Your task to perform on an android device: Open ESPN.com Image 0: 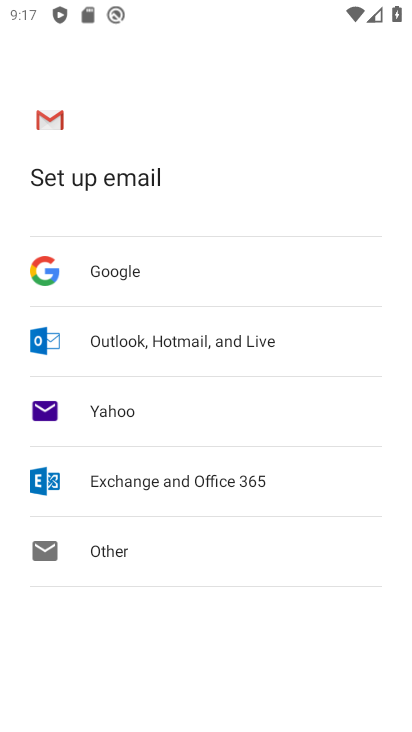
Step 0: press home button
Your task to perform on an android device: Open ESPN.com Image 1: 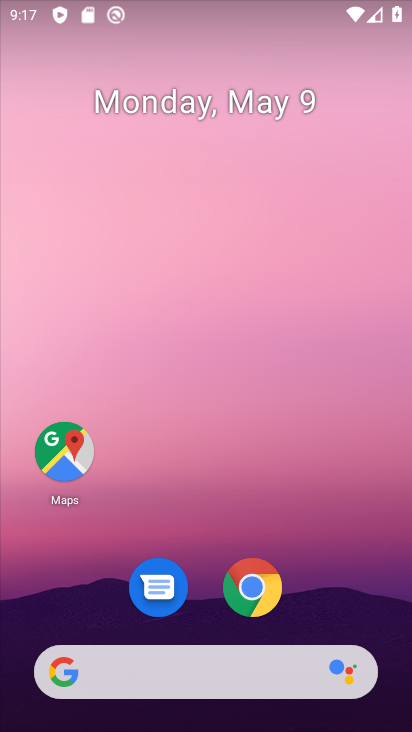
Step 1: click (250, 590)
Your task to perform on an android device: Open ESPN.com Image 2: 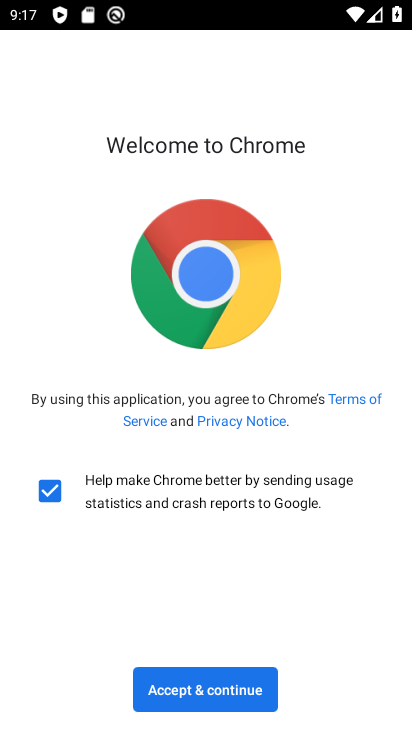
Step 2: click (186, 686)
Your task to perform on an android device: Open ESPN.com Image 3: 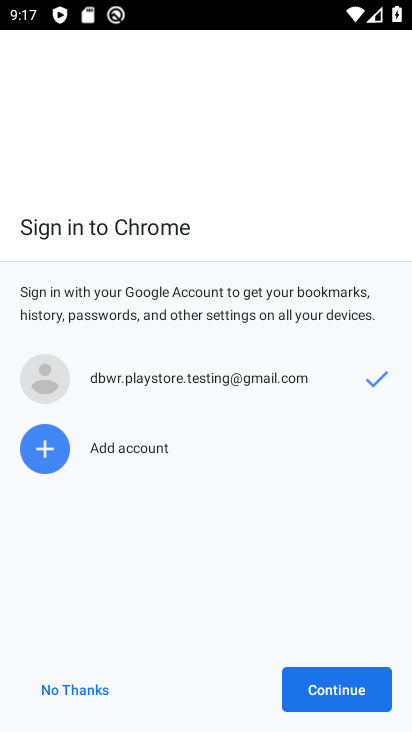
Step 3: click (327, 682)
Your task to perform on an android device: Open ESPN.com Image 4: 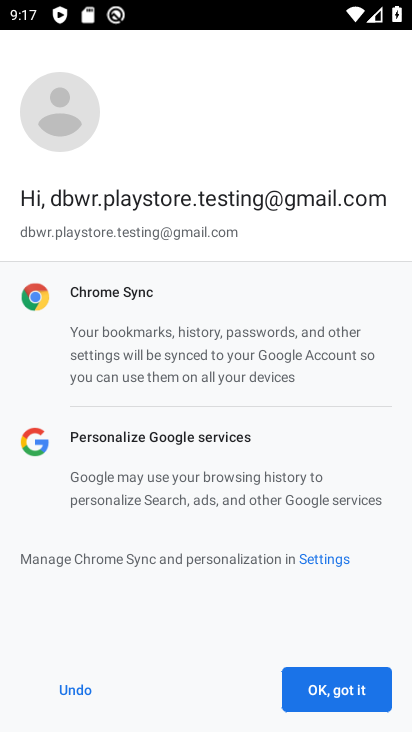
Step 4: click (327, 682)
Your task to perform on an android device: Open ESPN.com Image 5: 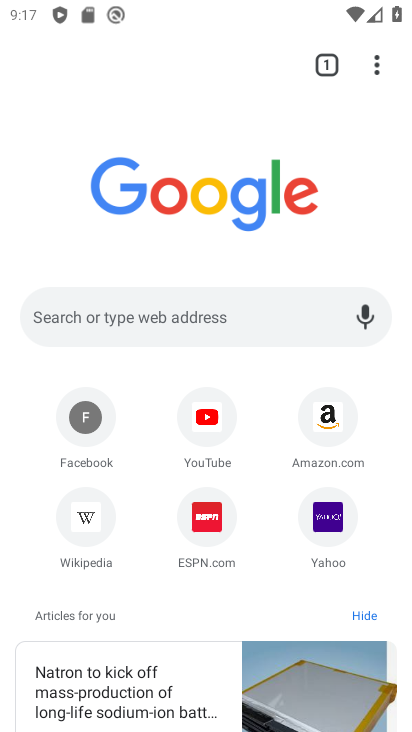
Step 5: click (271, 329)
Your task to perform on an android device: Open ESPN.com Image 6: 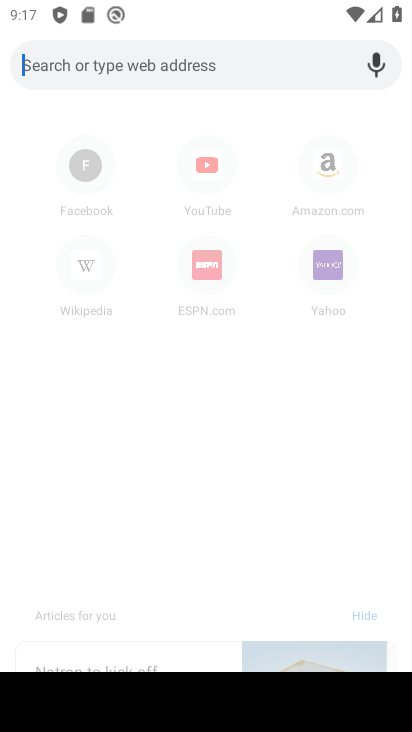
Step 6: type "ESPN.com"
Your task to perform on an android device: Open ESPN.com Image 7: 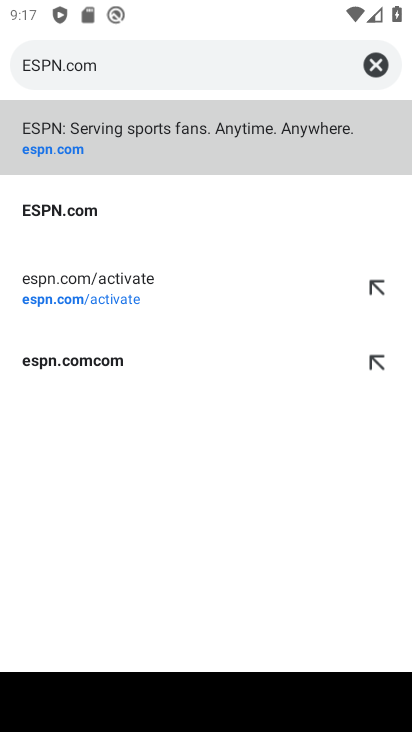
Step 7: click (144, 127)
Your task to perform on an android device: Open ESPN.com Image 8: 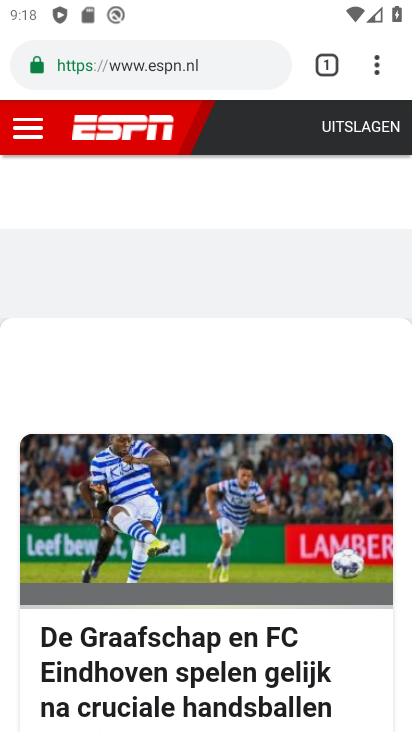
Step 8: task complete